Your task to perform on an android device: delete browsing data in the chrome app Image 0: 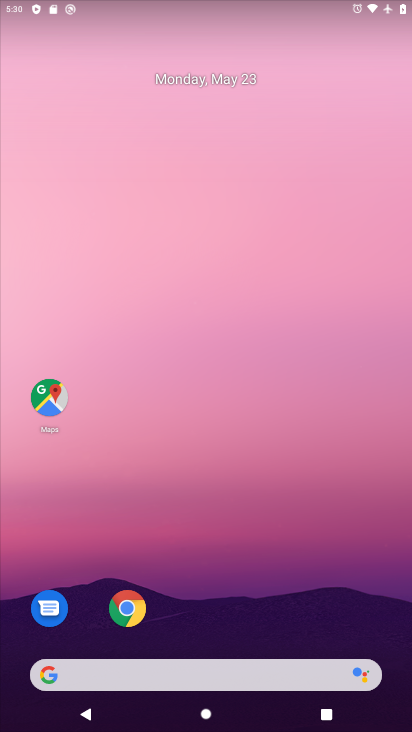
Step 0: click (125, 620)
Your task to perform on an android device: delete browsing data in the chrome app Image 1: 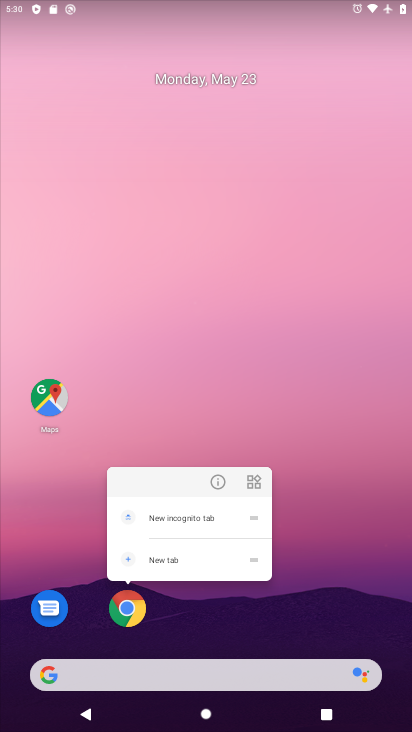
Step 1: click (125, 616)
Your task to perform on an android device: delete browsing data in the chrome app Image 2: 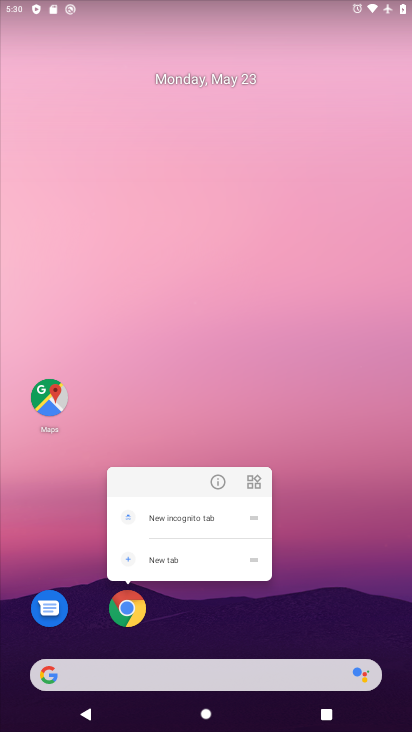
Step 2: click (119, 605)
Your task to perform on an android device: delete browsing data in the chrome app Image 3: 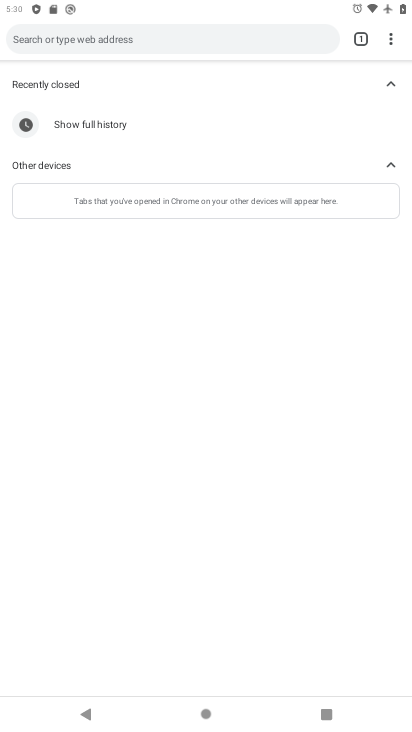
Step 3: click (389, 47)
Your task to perform on an android device: delete browsing data in the chrome app Image 4: 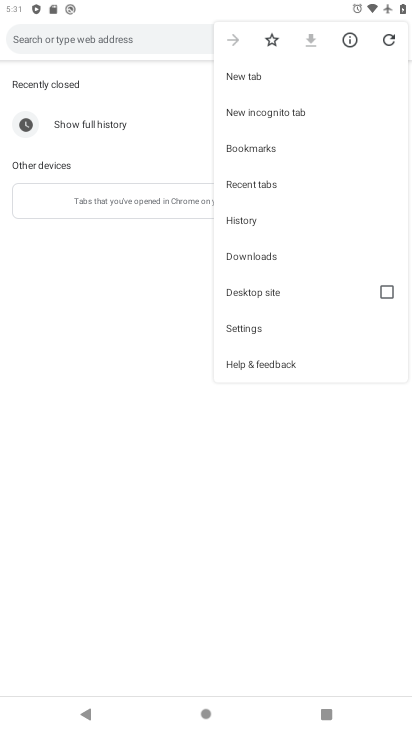
Step 4: click (250, 224)
Your task to perform on an android device: delete browsing data in the chrome app Image 5: 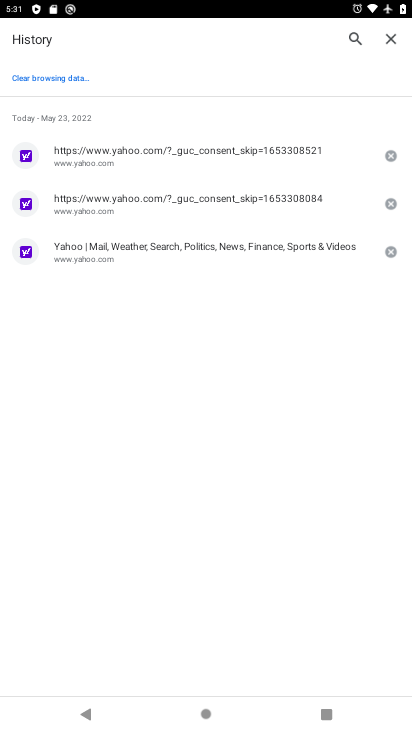
Step 5: click (72, 81)
Your task to perform on an android device: delete browsing data in the chrome app Image 6: 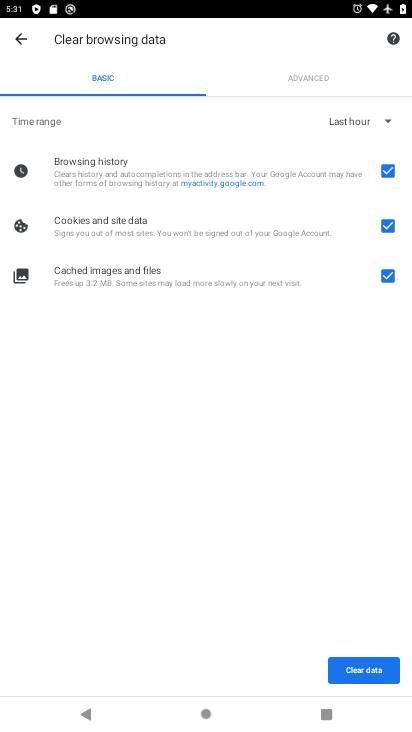
Step 6: click (338, 679)
Your task to perform on an android device: delete browsing data in the chrome app Image 7: 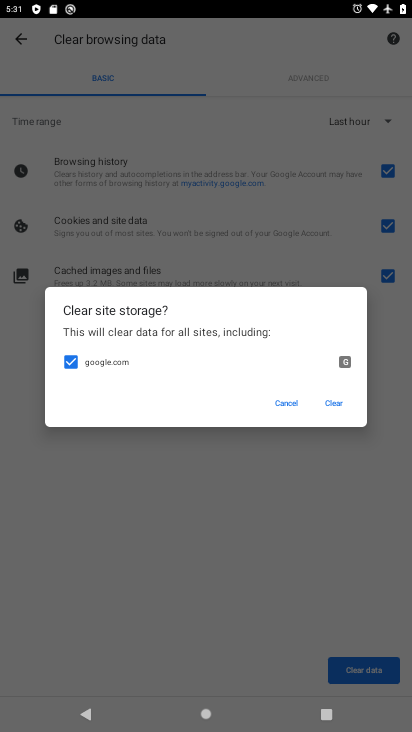
Step 7: click (336, 408)
Your task to perform on an android device: delete browsing data in the chrome app Image 8: 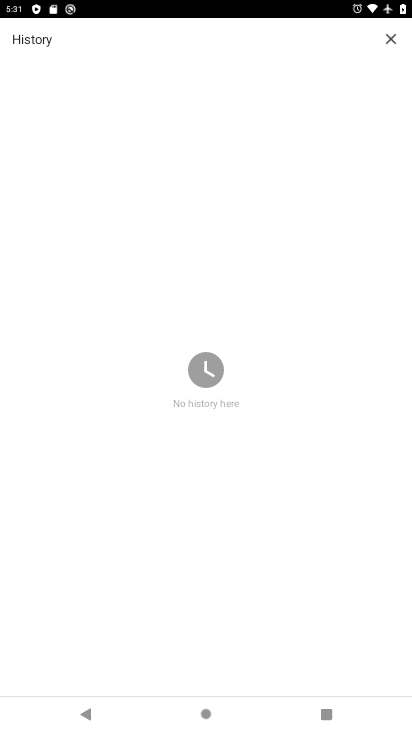
Step 8: task complete